Your task to perform on an android device: Go to display settings Image 0: 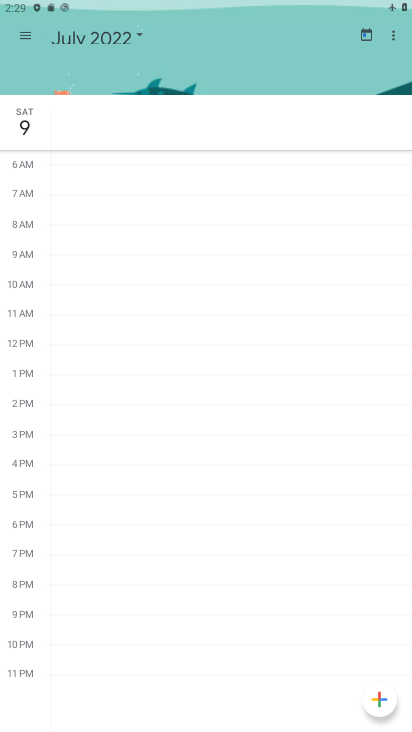
Step 0: press home button
Your task to perform on an android device: Go to display settings Image 1: 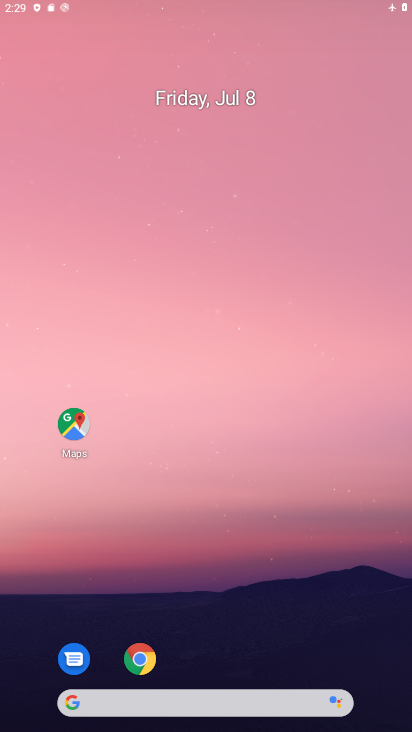
Step 1: drag from (233, 593) to (352, 18)
Your task to perform on an android device: Go to display settings Image 2: 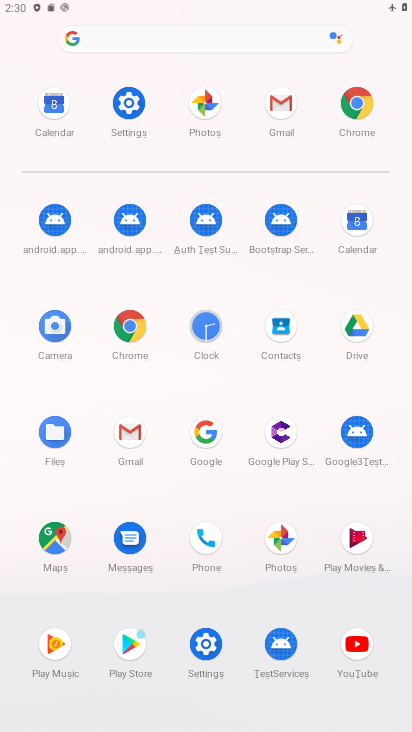
Step 2: click (199, 650)
Your task to perform on an android device: Go to display settings Image 3: 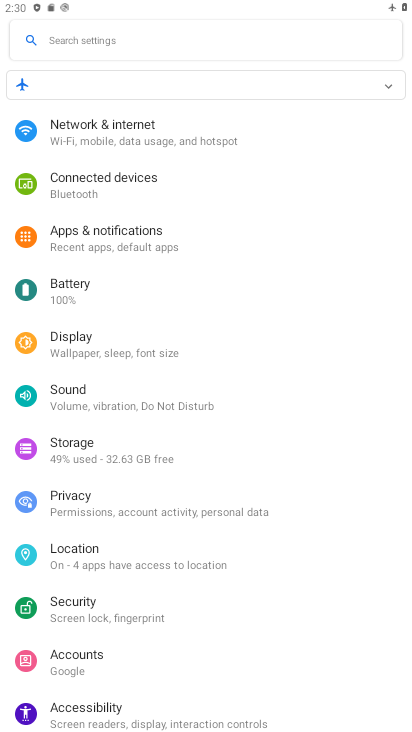
Step 3: click (170, 350)
Your task to perform on an android device: Go to display settings Image 4: 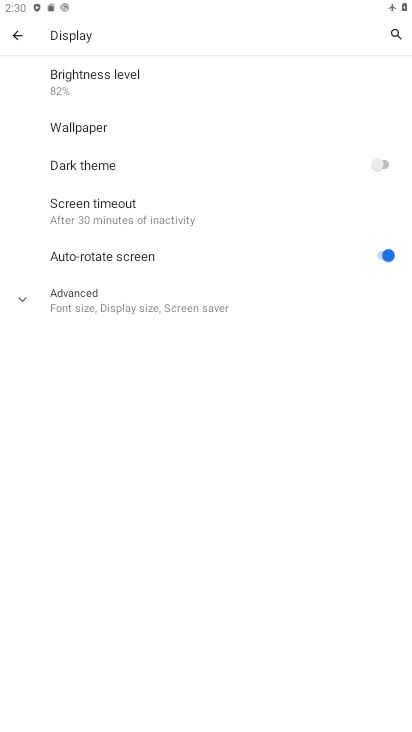
Step 4: task complete